Your task to perform on an android device: allow cookies in the chrome app Image 0: 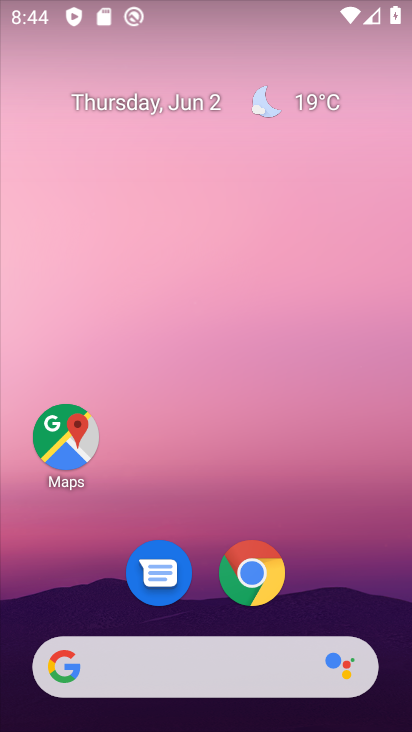
Step 0: click (245, 571)
Your task to perform on an android device: allow cookies in the chrome app Image 1: 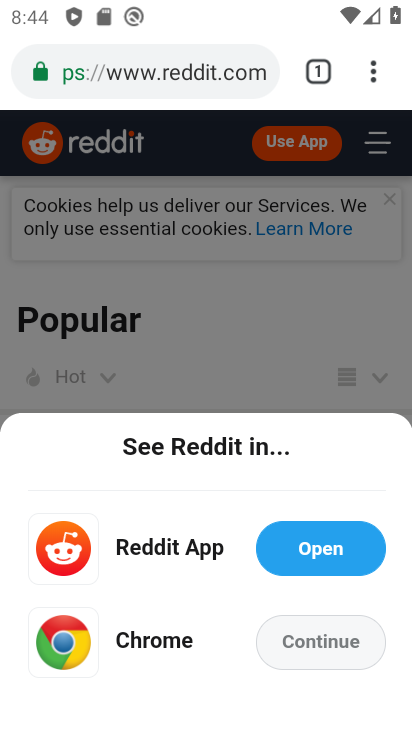
Step 1: click (369, 63)
Your task to perform on an android device: allow cookies in the chrome app Image 2: 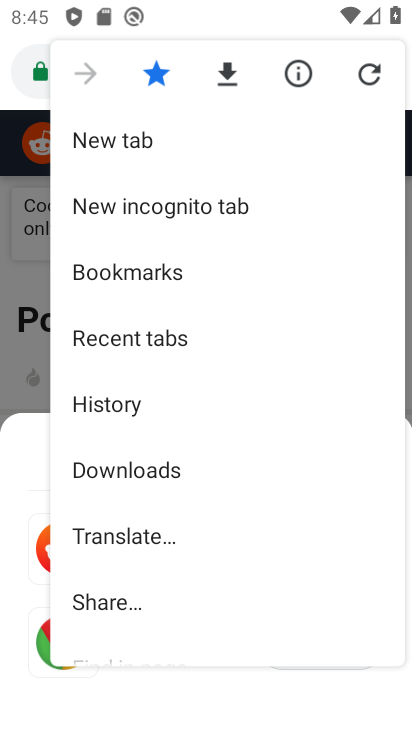
Step 2: drag from (149, 575) to (136, 266)
Your task to perform on an android device: allow cookies in the chrome app Image 3: 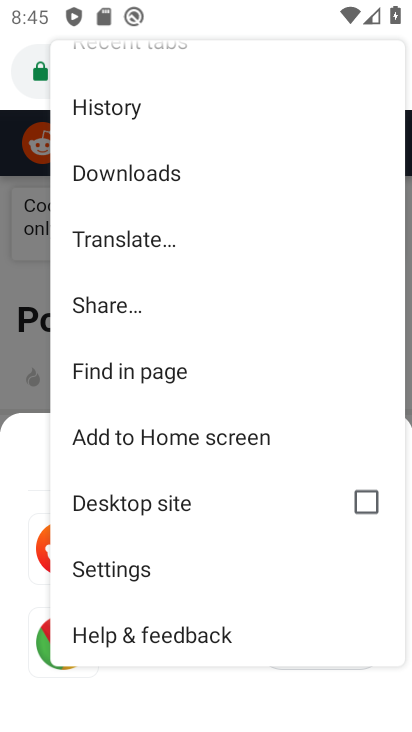
Step 3: click (125, 571)
Your task to perform on an android device: allow cookies in the chrome app Image 4: 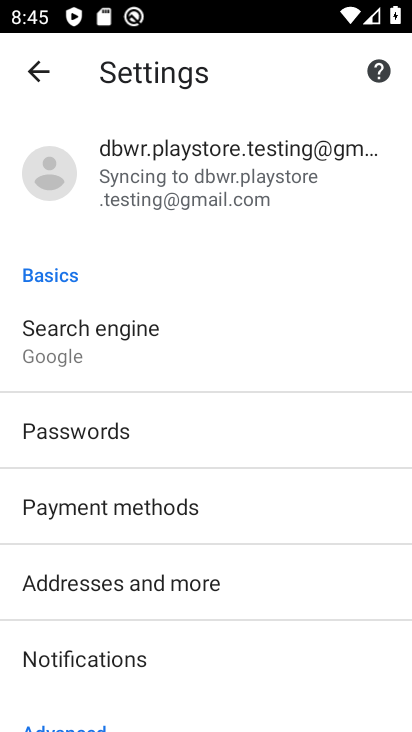
Step 4: drag from (197, 675) to (212, 145)
Your task to perform on an android device: allow cookies in the chrome app Image 5: 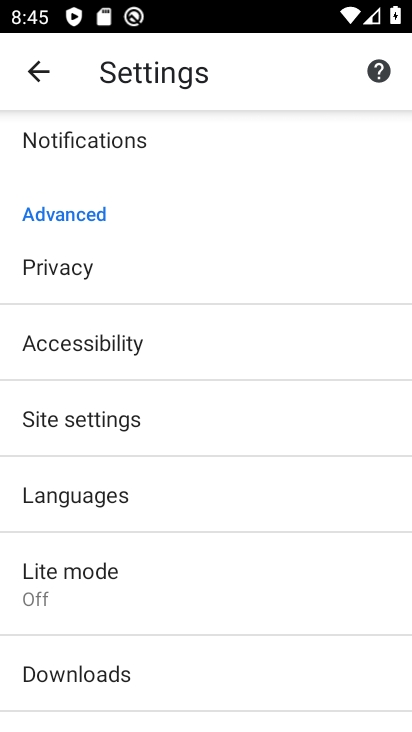
Step 5: click (137, 409)
Your task to perform on an android device: allow cookies in the chrome app Image 6: 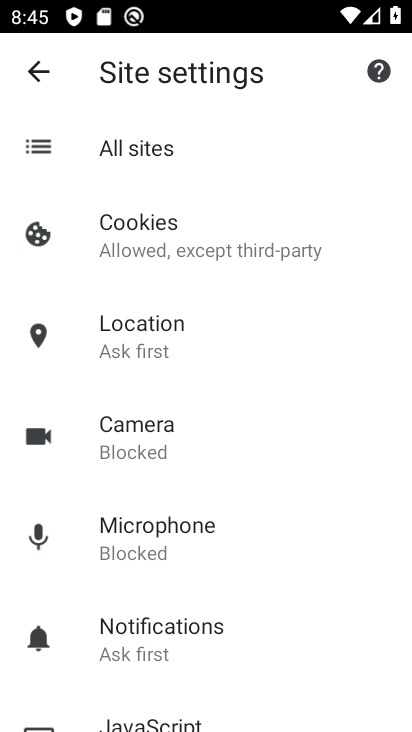
Step 6: click (166, 231)
Your task to perform on an android device: allow cookies in the chrome app Image 7: 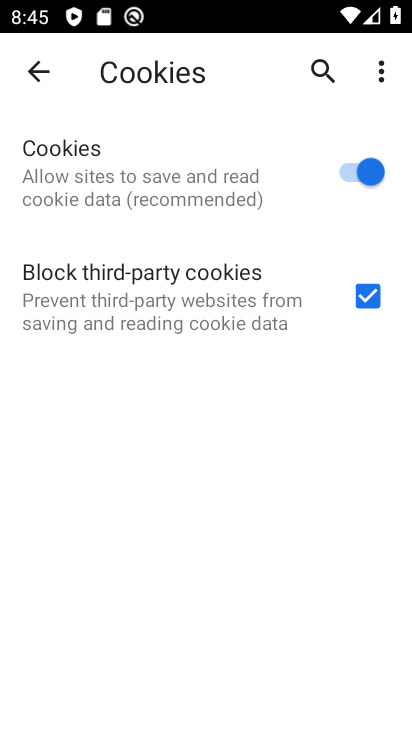
Step 7: task complete